Your task to perform on an android device: Do I have any events tomorrow? Image 0: 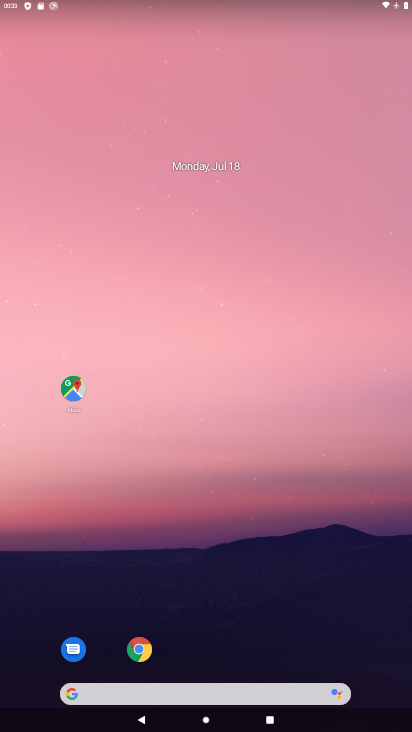
Step 0: drag from (208, 513) to (221, 10)
Your task to perform on an android device: Do I have any events tomorrow? Image 1: 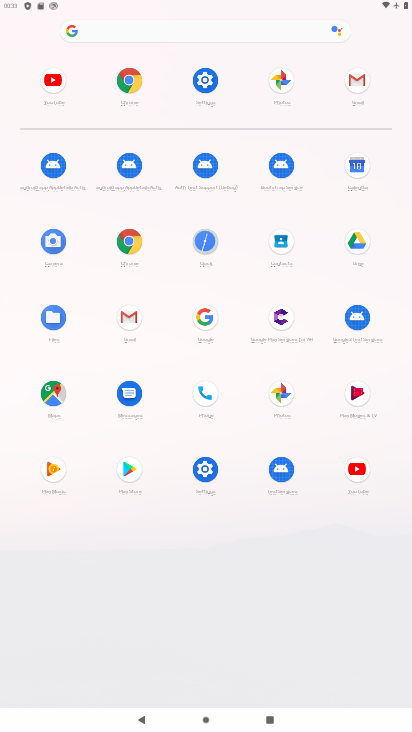
Step 1: click (353, 165)
Your task to perform on an android device: Do I have any events tomorrow? Image 2: 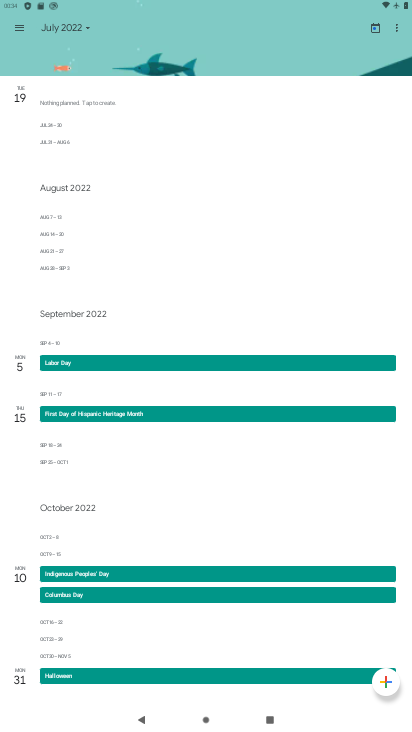
Step 2: task complete